Your task to perform on an android device: open sync settings in chrome Image 0: 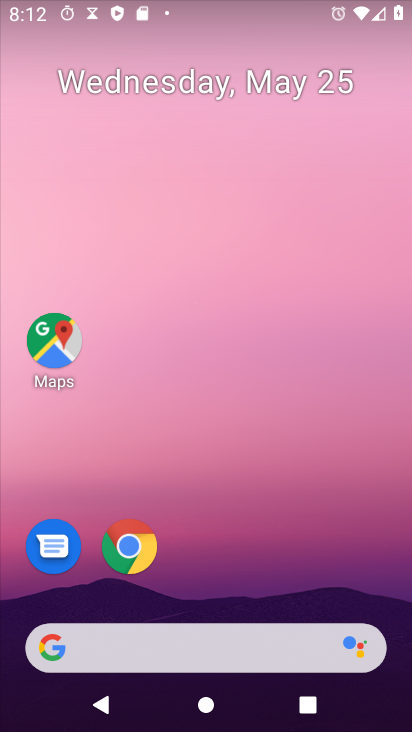
Step 0: click (124, 542)
Your task to perform on an android device: open sync settings in chrome Image 1: 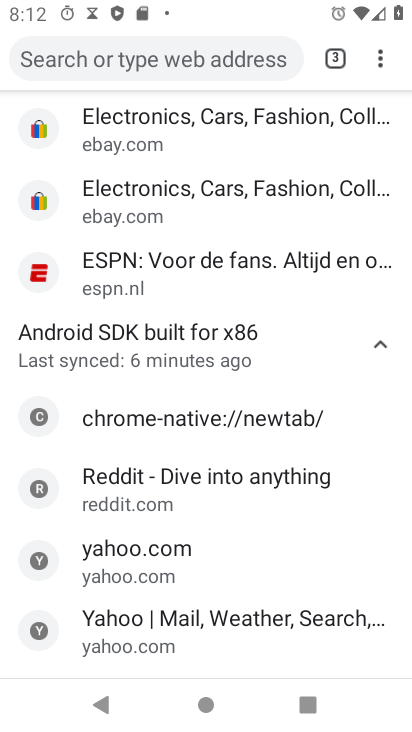
Step 1: click (384, 63)
Your task to perform on an android device: open sync settings in chrome Image 2: 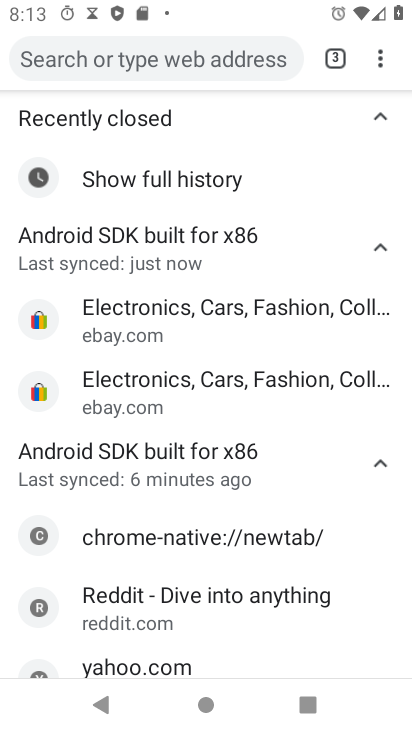
Step 2: press back button
Your task to perform on an android device: open sync settings in chrome Image 3: 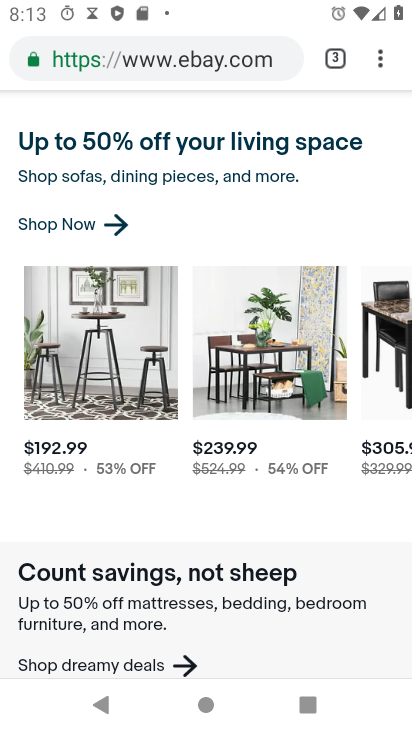
Step 3: click (382, 70)
Your task to perform on an android device: open sync settings in chrome Image 4: 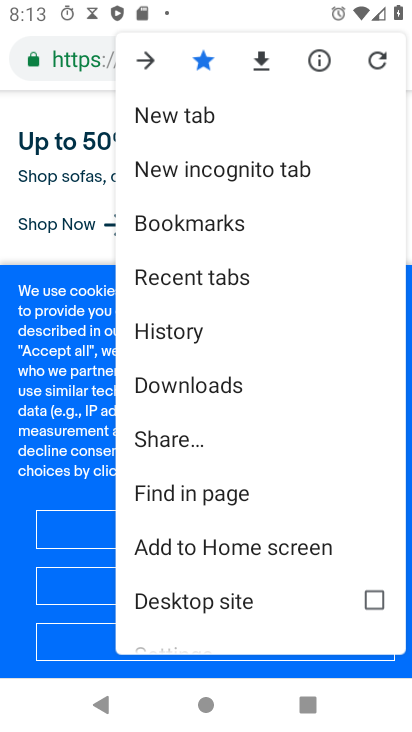
Step 4: drag from (181, 564) to (273, 323)
Your task to perform on an android device: open sync settings in chrome Image 5: 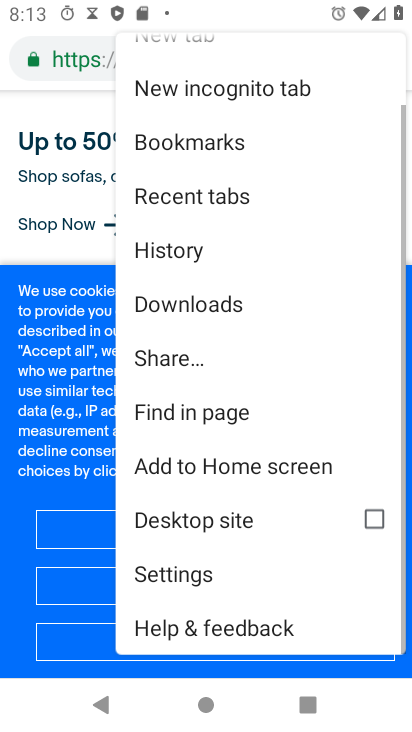
Step 5: click (183, 576)
Your task to perform on an android device: open sync settings in chrome Image 6: 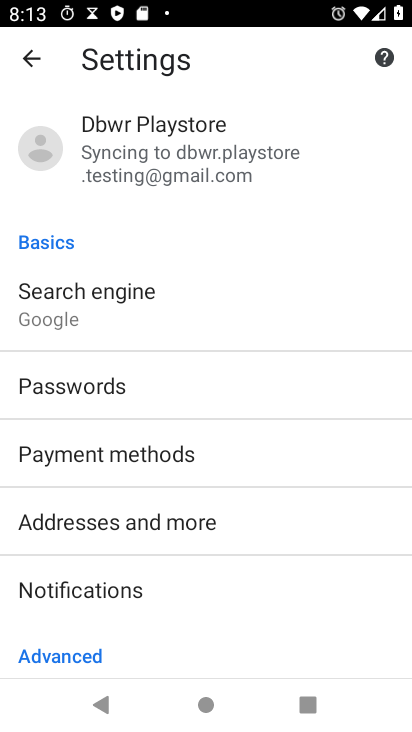
Step 6: click (182, 126)
Your task to perform on an android device: open sync settings in chrome Image 7: 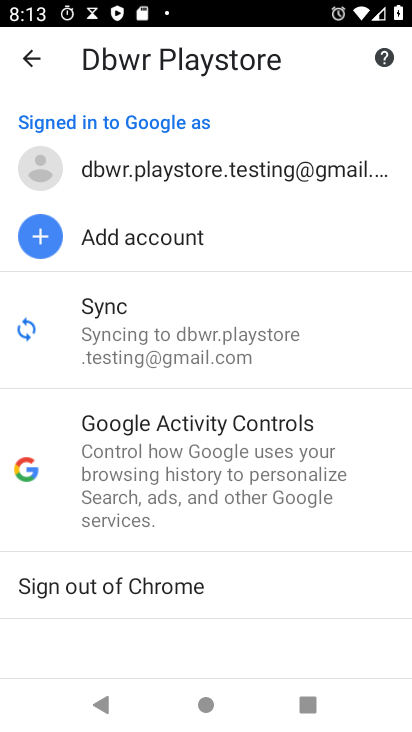
Step 7: click (89, 359)
Your task to perform on an android device: open sync settings in chrome Image 8: 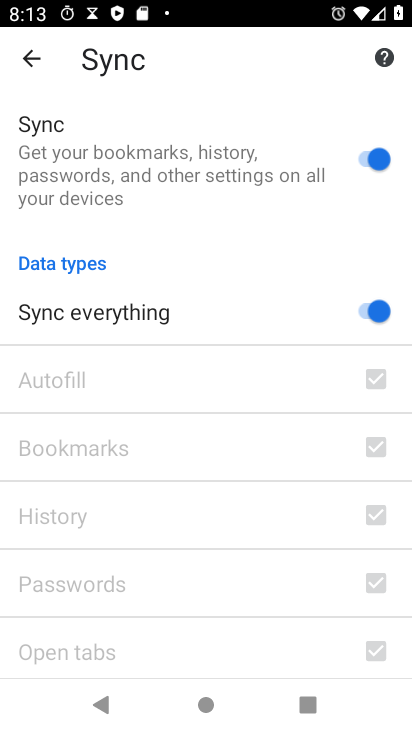
Step 8: task complete